Your task to perform on an android device: Go to Reddit.com Image 0: 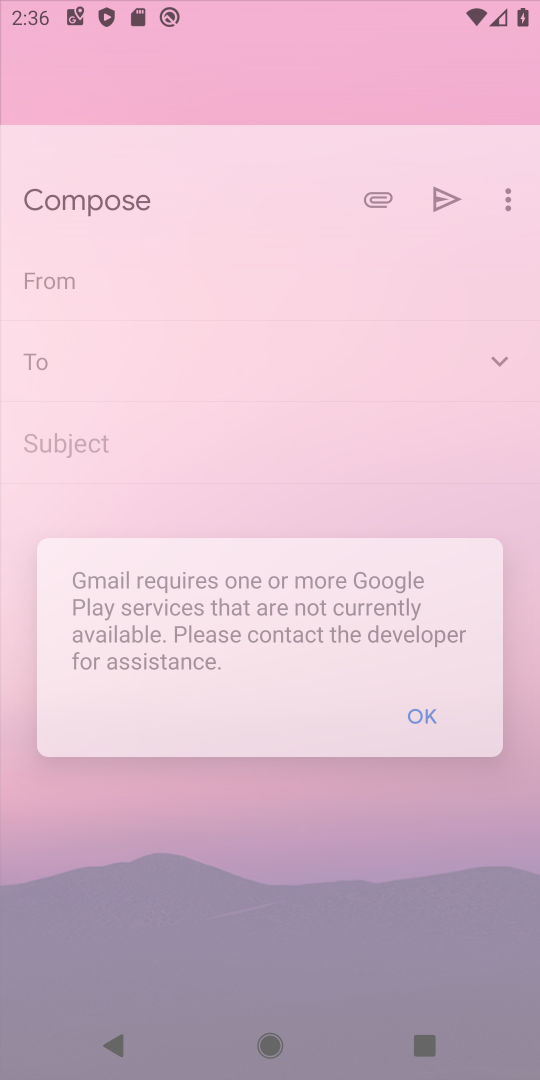
Step 0: press home button
Your task to perform on an android device: Go to Reddit.com Image 1: 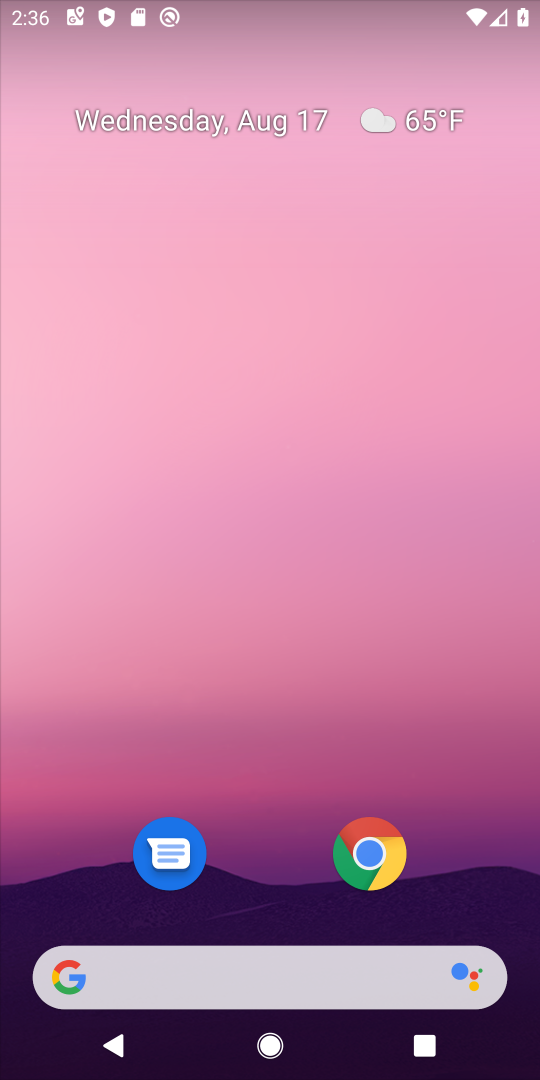
Step 1: drag from (269, 786) to (256, 121)
Your task to perform on an android device: Go to Reddit.com Image 2: 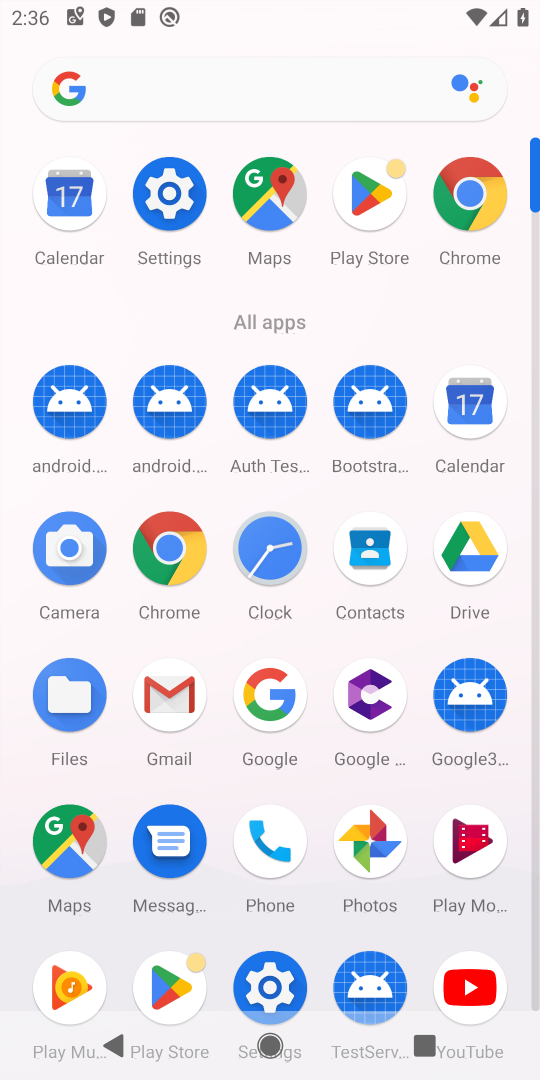
Step 2: click (161, 540)
Your task to perform on an android device: Go to Reddit.com Image 3: 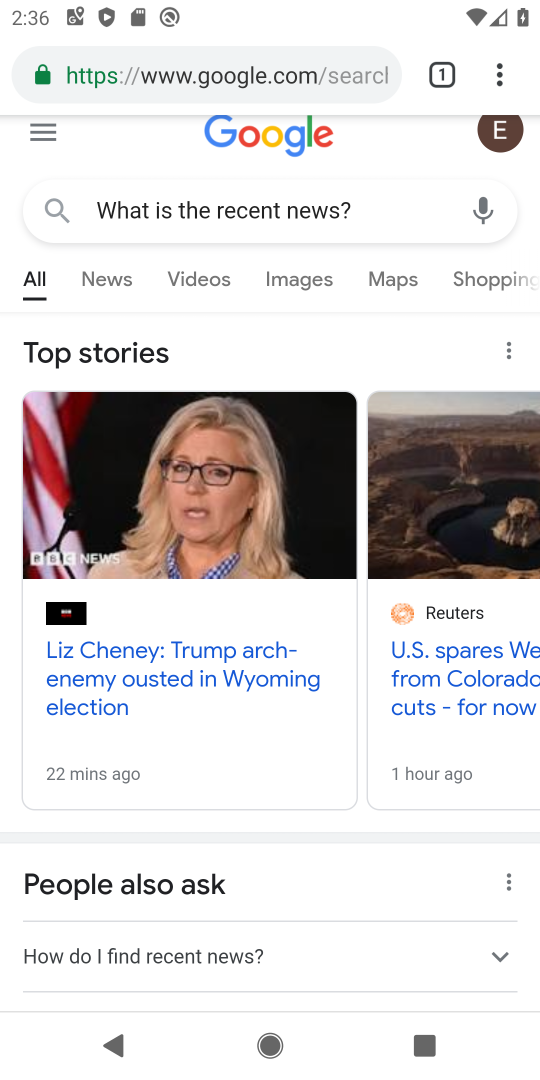
Step 3: click (271, 83)
Your task to perform on an android device: Go to Reddit.com Image 4: 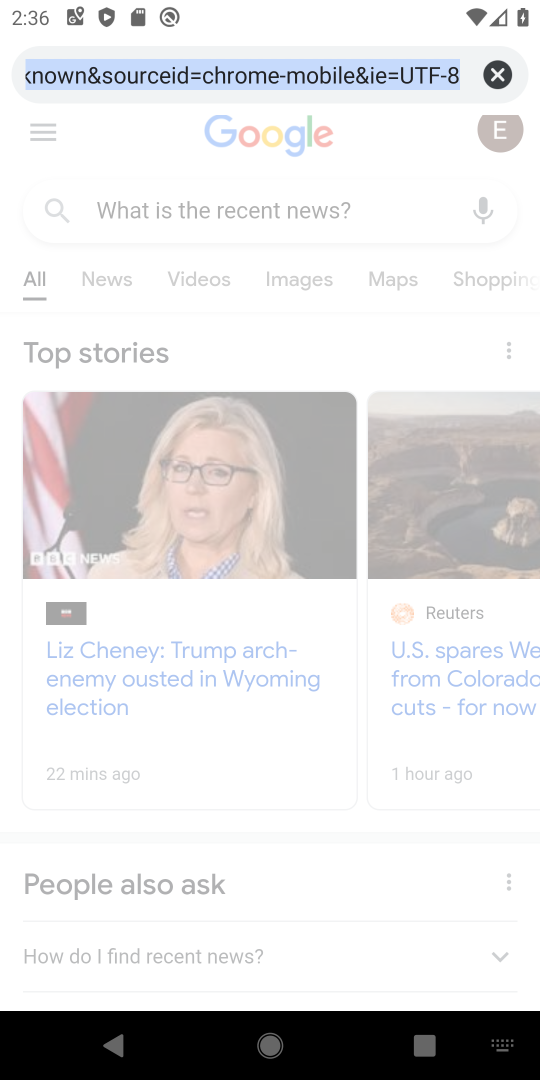
Step 4: type " Reddit.com"
Your task to perform on an android device: Go to Reddit.com Image 5: 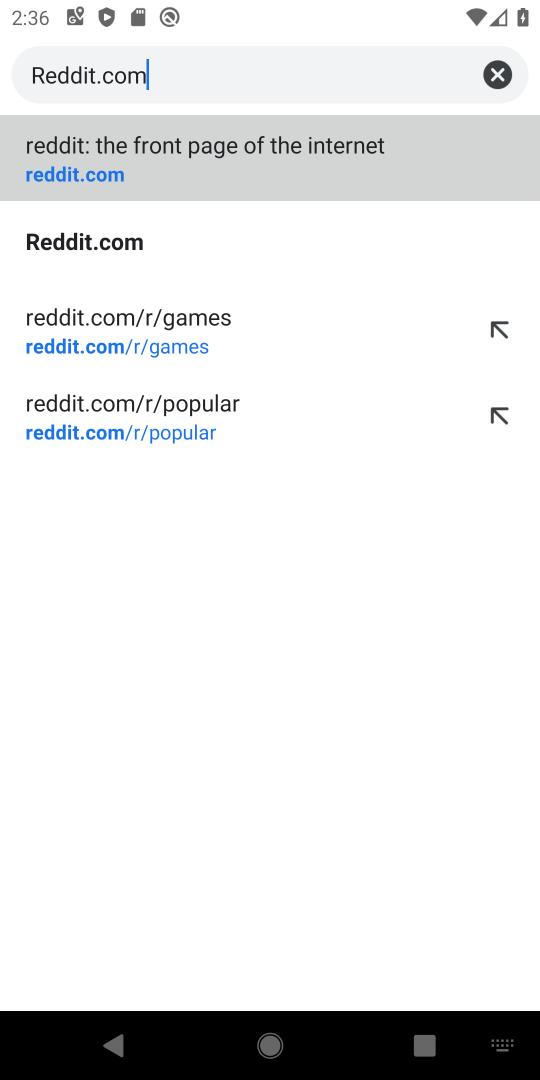
Step 5: click (74, 171)
Your task to perform on an android device: Go to Reddit.com Image 6: 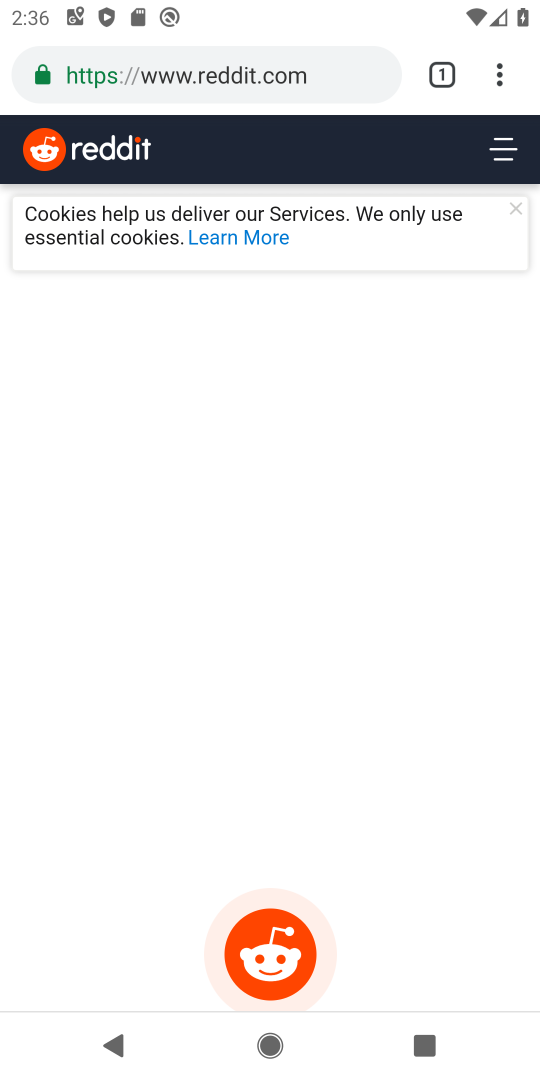
Step 6: task complete